Your task to perform on an android device: Is it going to rain today? Image 0: 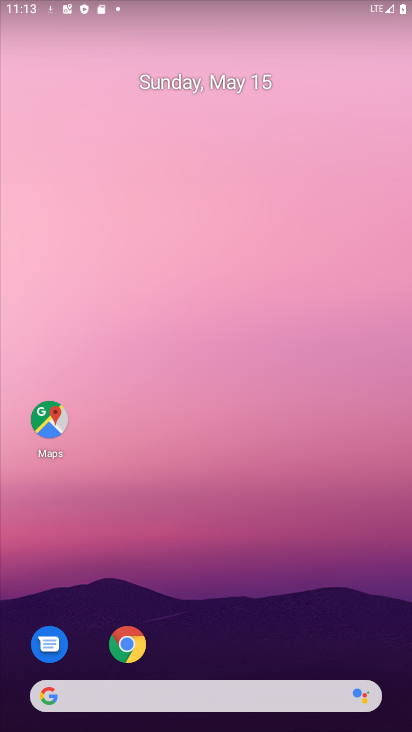
Step 0: drag from (243, 706) to (292, 179)
Your task to perform on an android device: Is it going to rain today? Image 1: 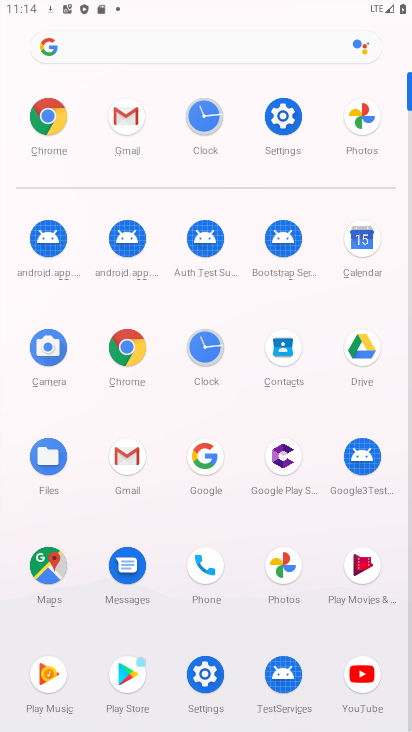
Step 1: click (132, 45)
Your task to perform on an android device: Is it going to rain today? Image 2: 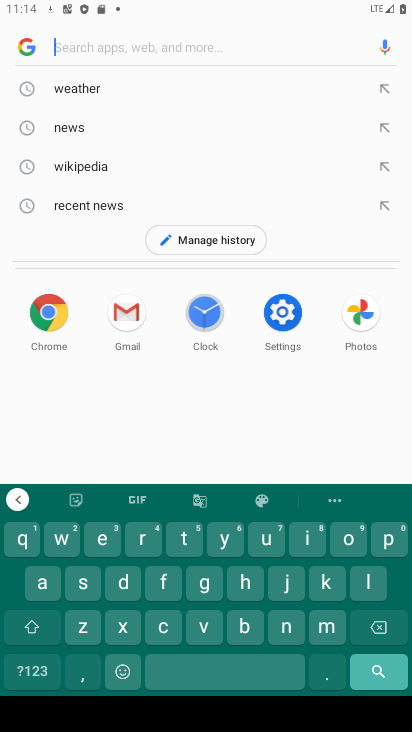
Step 2: click (103, 86)
Your task to perform on an android device: Is it going to rain today? Image 3: 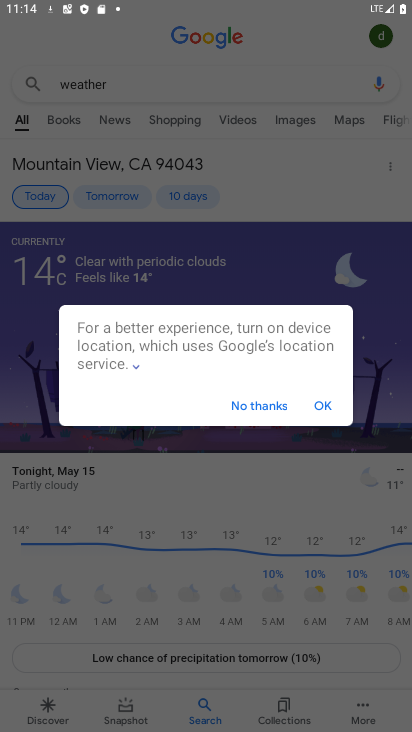
Step 3: click (312, 402)
Your task to perform on an android device: Is it going to rain today? Image 4: 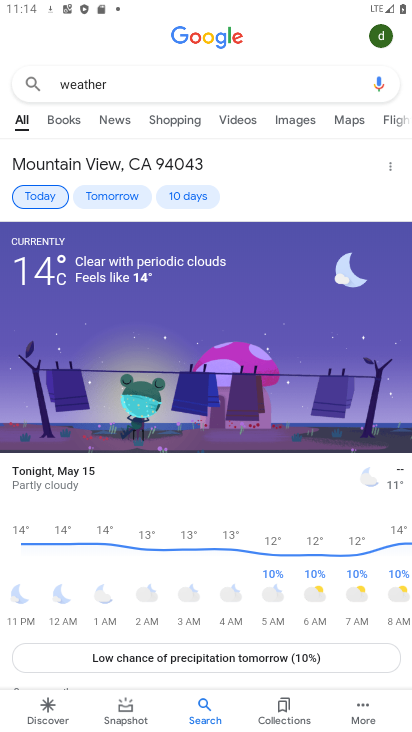
Step 4: task complete